Your task to perform on an android device: Go to notification settings Image 0: 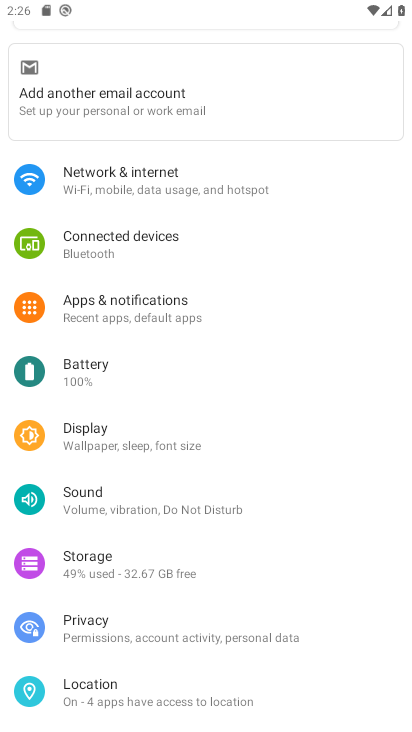
Step 0: press back button
Your task to perform on an android device: Go to notification settings Image 1: 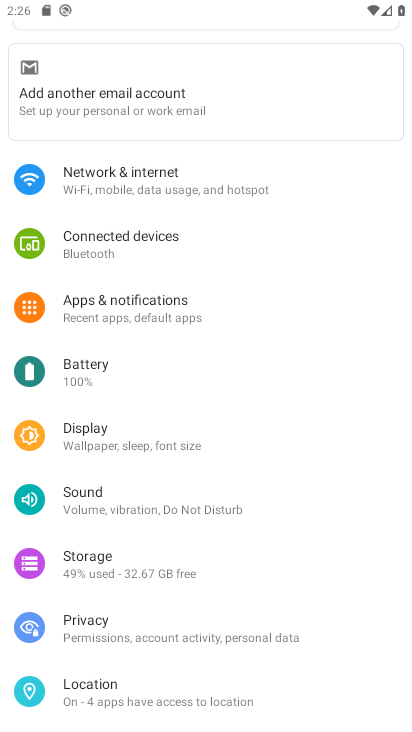
Step 1: press back button
Your task to perform on an android device: Go to notification settings Image 2: 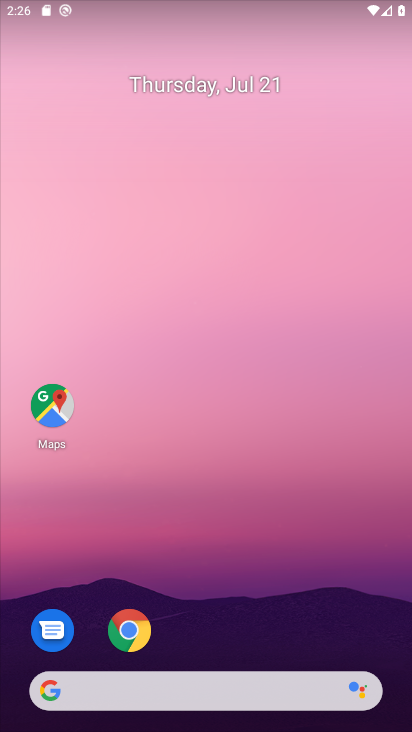
Step 2: drag from (169, 547) to (149, 370)
Your task to perform on an android device: Go to notification settings Image 3: 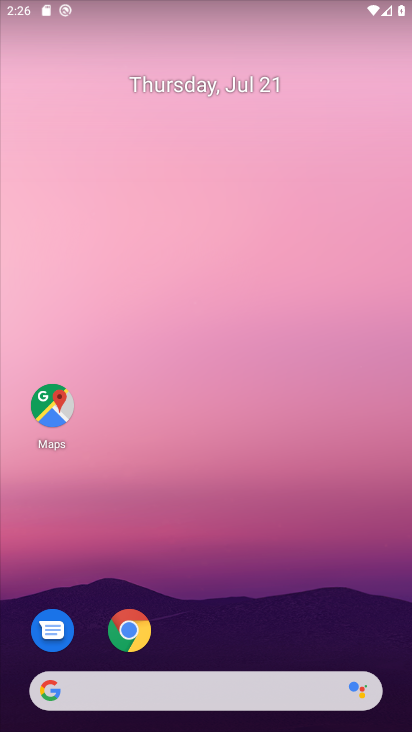
Step 3: drag from (209, 579) to (197, 345)
Your task to perform on an android device: Go to notification settings Image 4: 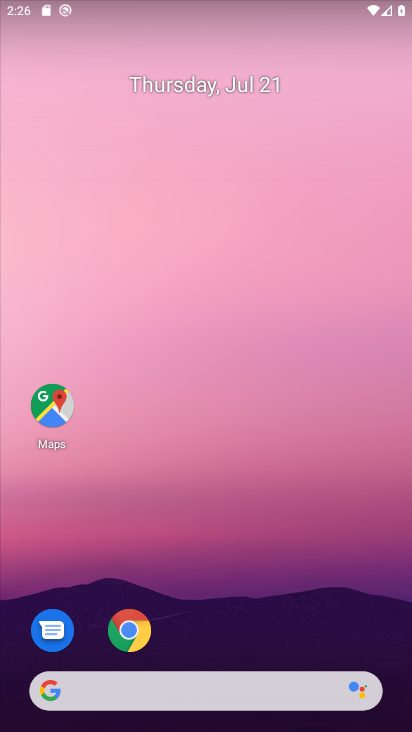
Step 4: drag from (200, 429) to (164, 218)
Your task to perform on an android device: Go to notification settings Image 5: 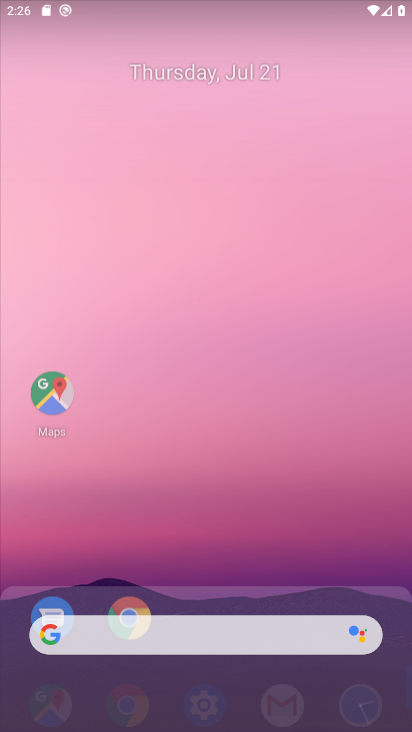
Step 5: drag from (187, 503) to (140, 240)
Your task to perform on an android device: Go to notification settings Image 6: 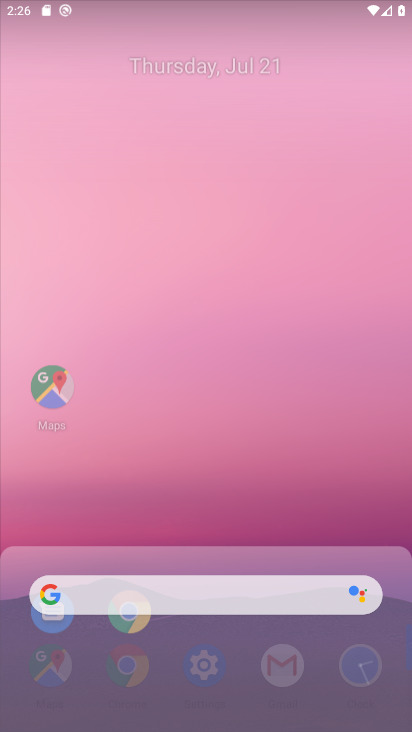
Step 6: drag from (210, 519) to (210, 97)
Your task to perform on an android device: Go to notification settings Image 7: 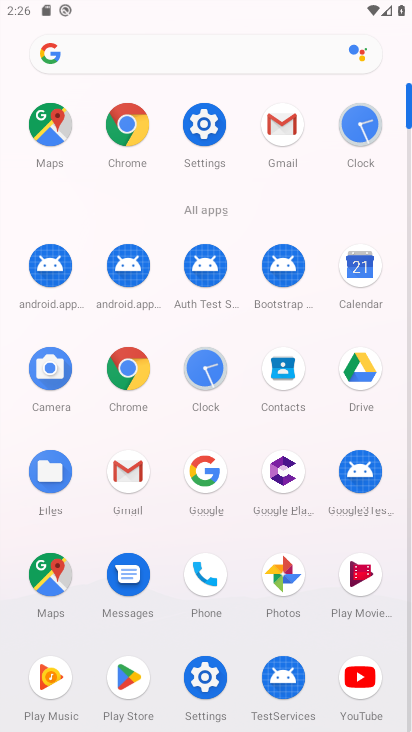
Step 7: drag from (254, 509) to (212, 202)
Your task to perform on an android device: Go to notification settings Image 8: 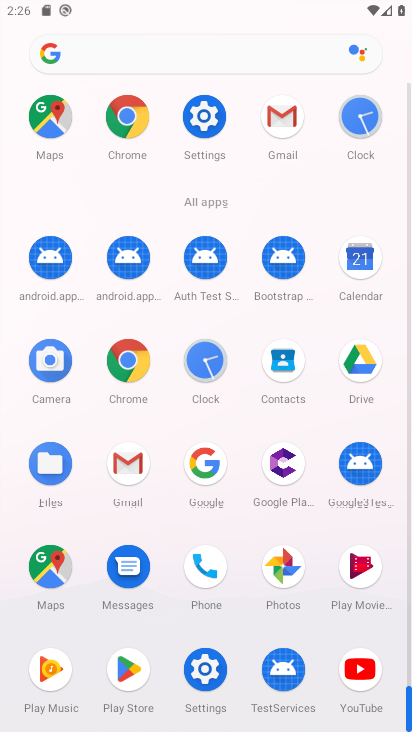
Step 8: click (202, 115)
Your task to perform on an android device: Go to notification settings Image 9: 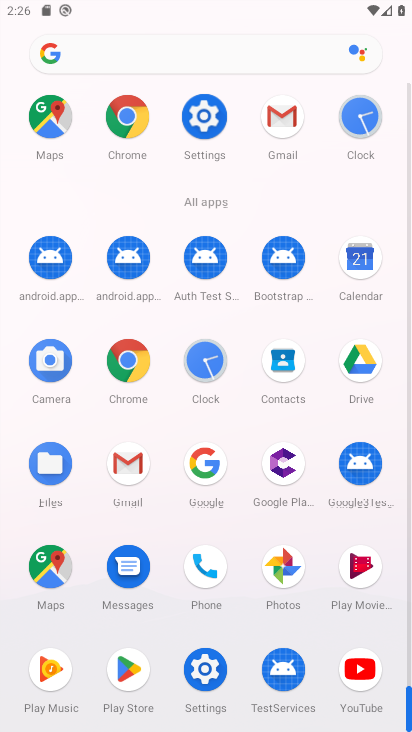
Step 9: click (205, 117)
Your task to perform on an android device: Go to notification settings Image 10: 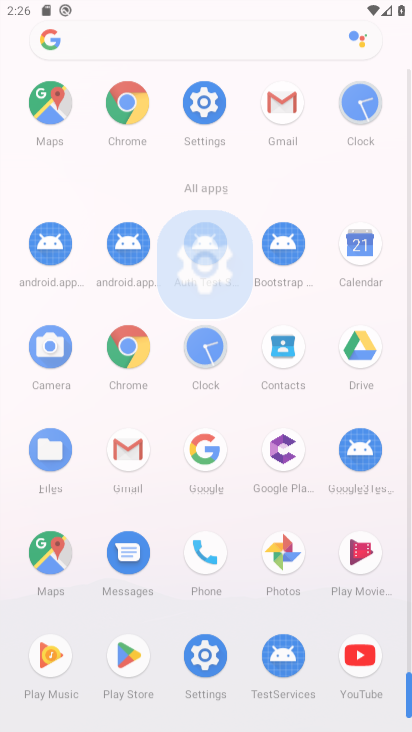
Step 10: click (205, 117)
Your task to perform on an android device: Go to notification settings Image 11: 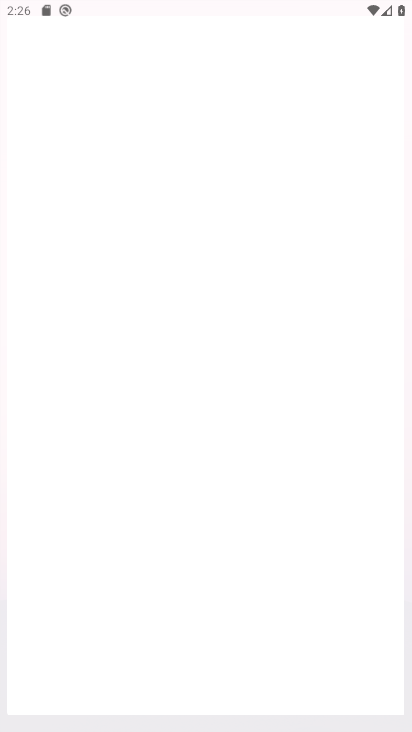
Step 11: click (204, 118)
Your task to perform on an android device: Go to notification settings Image 12: 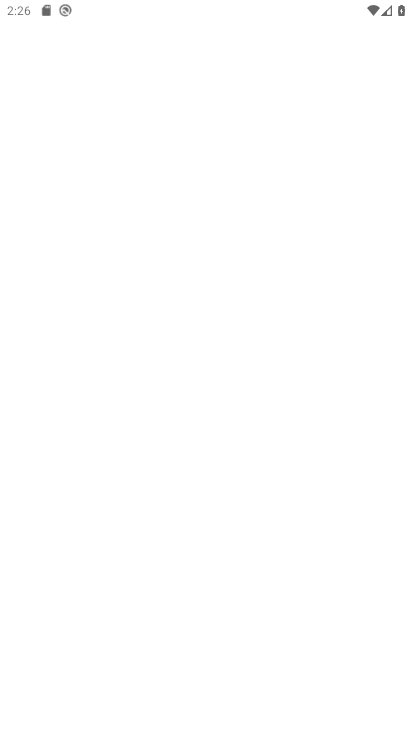
Step 12: click (204, 118)
Your task to perform on an android device: Go to notification settings Image 13: 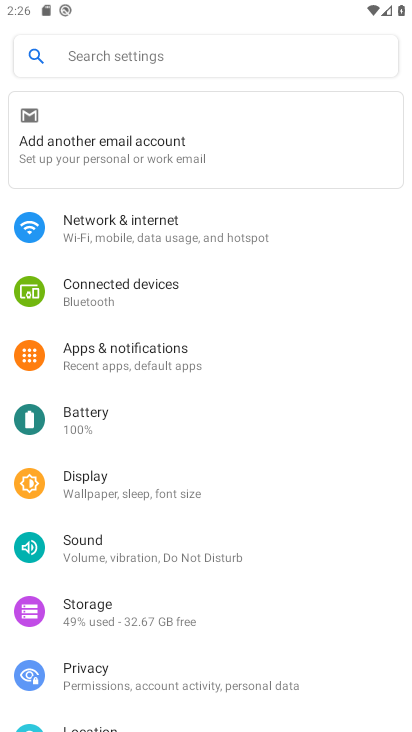
Step 13: click (131, 362)
Your task to perform on an android device: Go to notification settings Image 14: 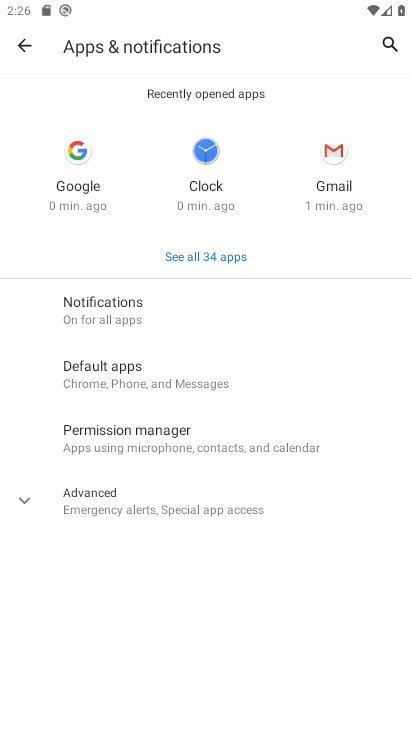
Step 14: click (100, 317)
Your task to perform on an android device: Go to notification settings Image 15: 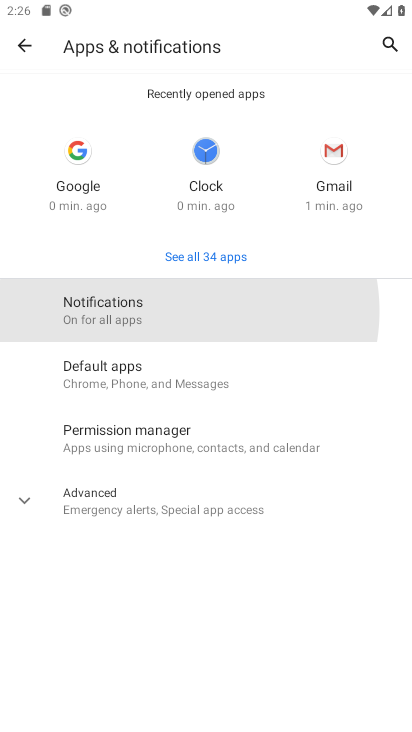
Step 15: click (100, 317)
Your task to perform on an android device: Go to notification settings Image 16: 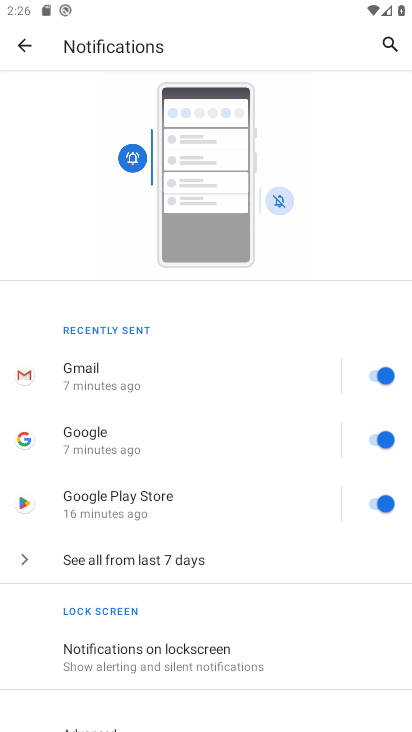
Step 16: task complete